Your task to perform on an android device: Go to location settings Image 0: 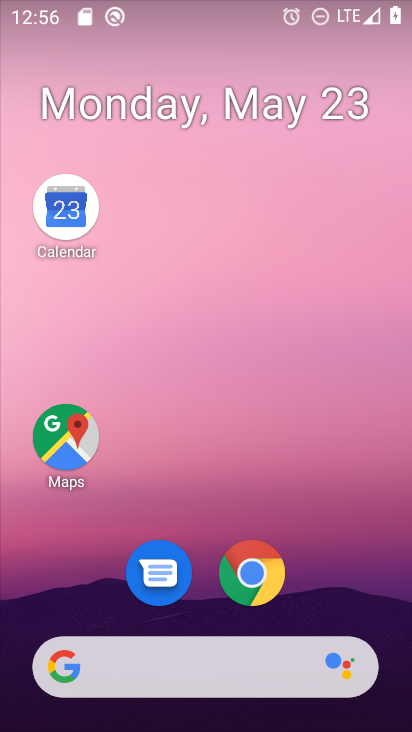
Step 0: drag from (345, 539) to (389, 123)
Your task to perform on an android device: Go to location settings Image 1: 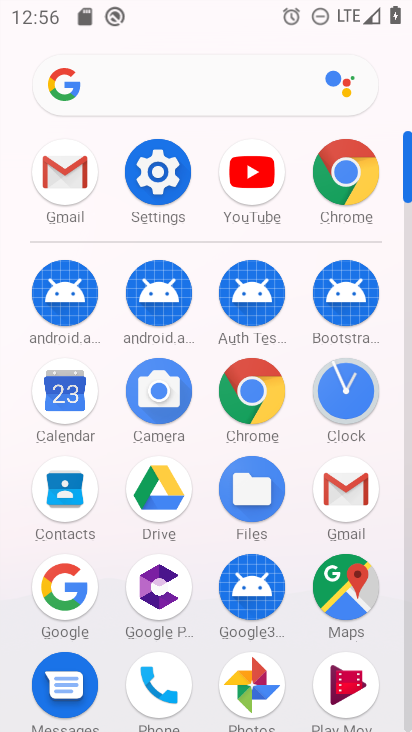
Step 1: click (162, 174)
Your task to perform on an android device: Go to location settings Image 2: 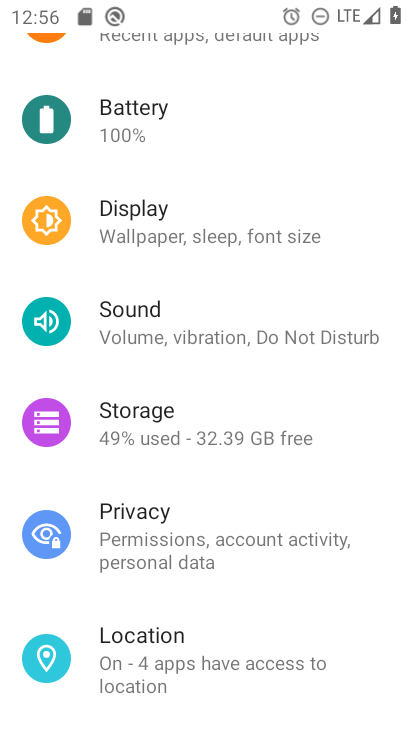
Step 2: click (179, 635)
Your task to perform on an android device: Go to location settings Image 3: 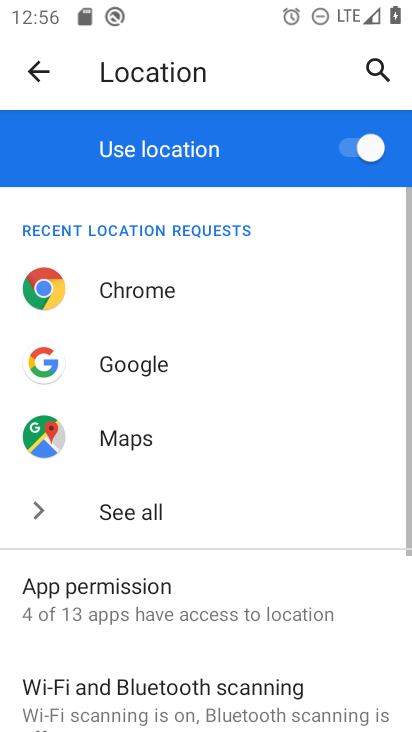
Step 3: task complete